Your task to perform on an android device: turn off airplane mode Image 0: 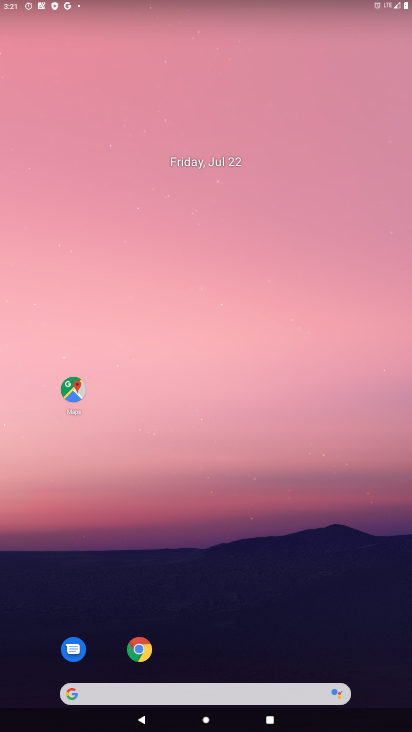
Step 0: drag from (284, 439) to (362, 75)
Your task to perform on an android device: turn off airplane mode Image 1: 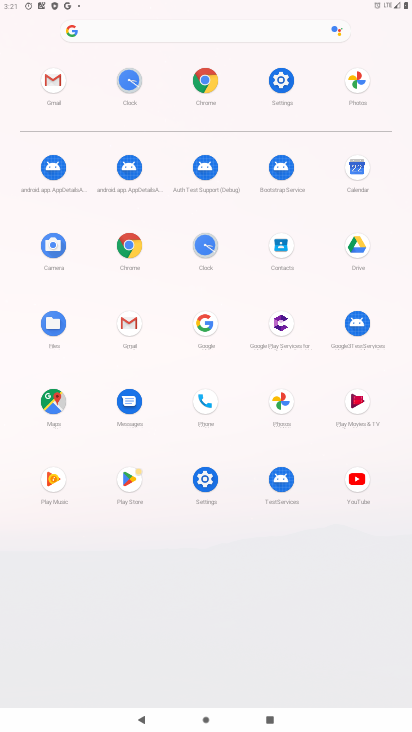
Step 1: click (283, 81)
Your task to perform on an android device: turn off airplane mode Image 2: 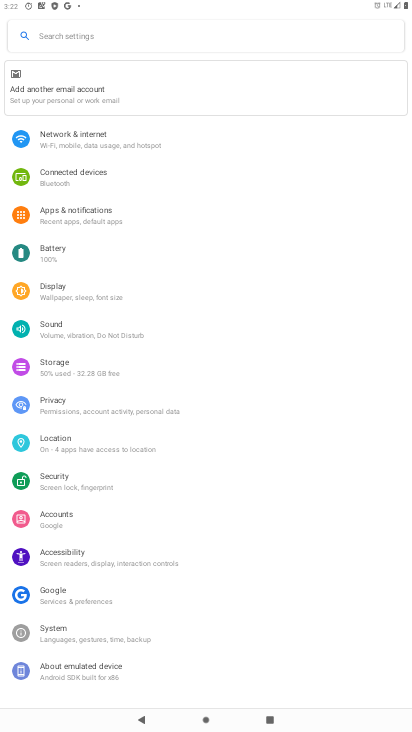
Step 2: click (126, 151)
Your task to perform on an android device: turn off airplane mode Image 3: 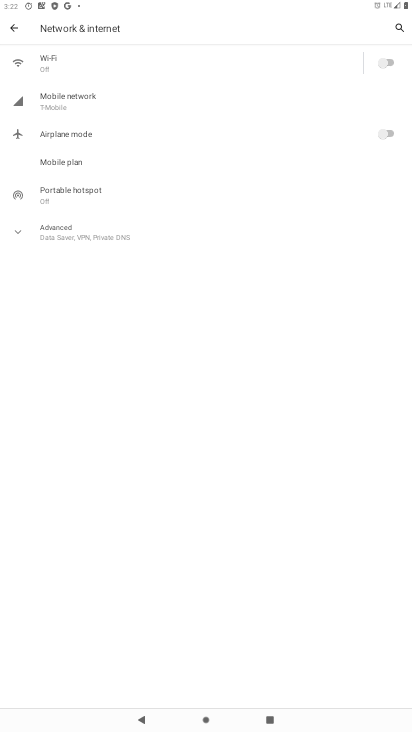
Step 3: task complete